Your task to perform on an android device: Open the Play Movies app and select the watchlist tab. Image 0: 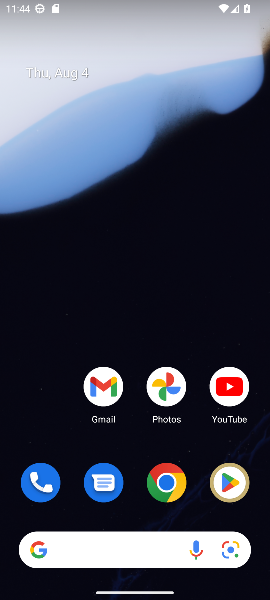
Step 0: drag from (142, 112) to (151, 54)
Your task to perform on an android device: Open the Play Movies app and select the watchlist tab. Image 1: 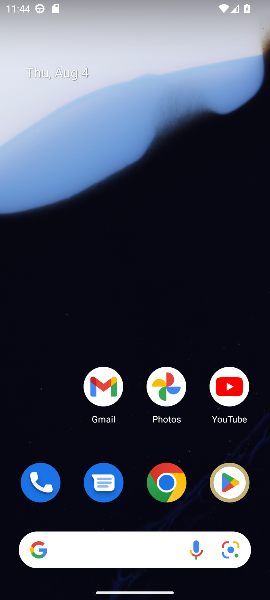
Step 1: task complete